Your task to perform on an android device: turn off sleep mode Image 0: 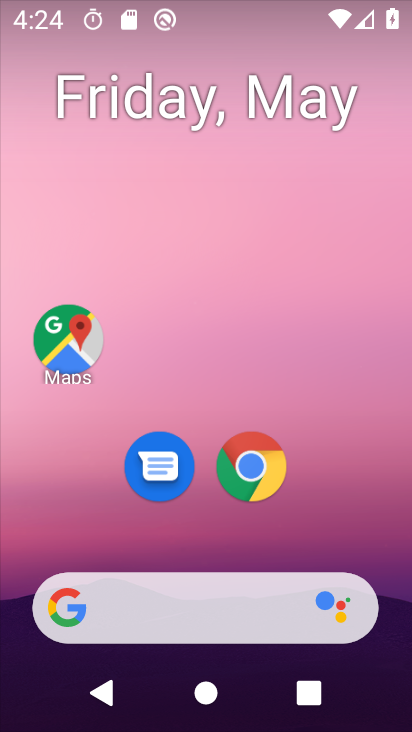
Step 0: drag from (324, 318) to (318, 153)
Your task to perform on an android device: turn off sleep mode Image 1: 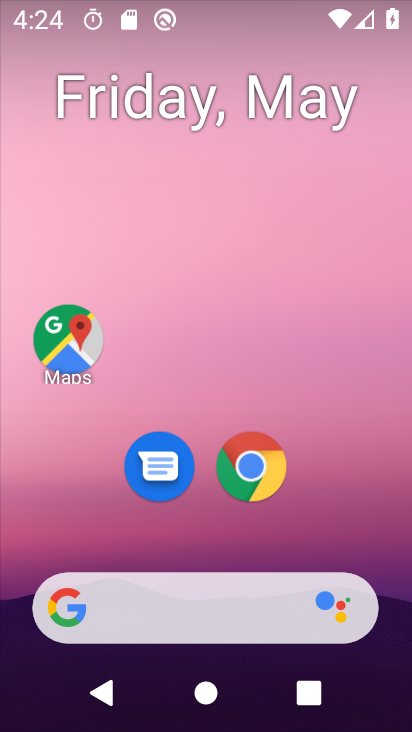
Step 1: drag from (398, 648) to (376, 245)
Your task to perform on an android device: turn off sleep mode Image 2: 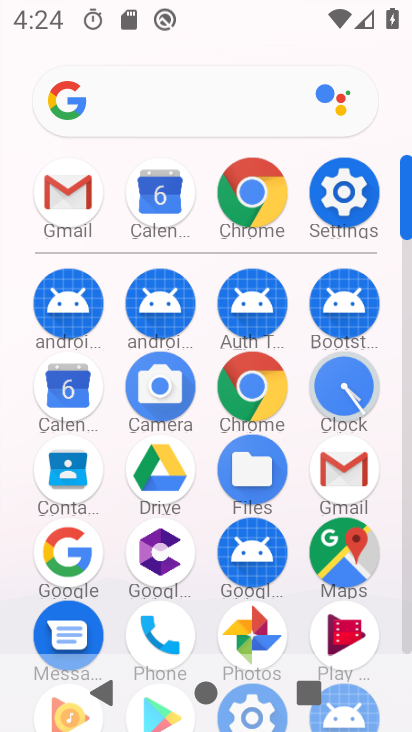
Step 2: click (340, 205)
Your task to perform on an android device: turn off sleep mode Image 3: 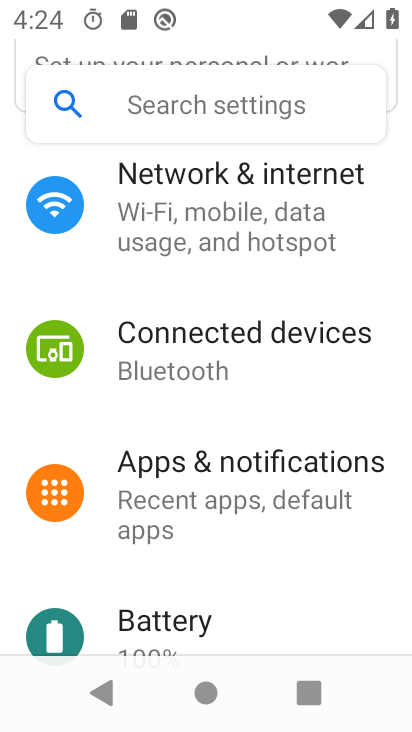
Step 3: drag from (358, 248) to (352, 605)
Your task to perform on an android device: turn off sleep mode Image 4: 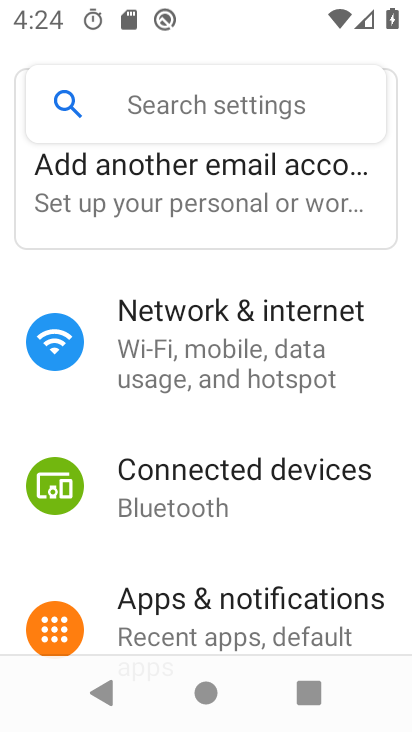
Step 4: drag from (355, 485) to (369, 674)
Your task to perform on an android device: turn off sleep mode Image 5: 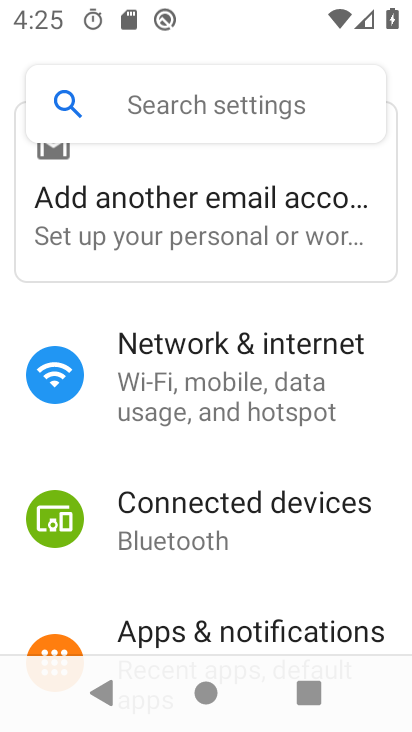
Step 5: drag from (237, 614) to (274, 360)
Your task to perform on an android device: turn off sleep mode Image 6: 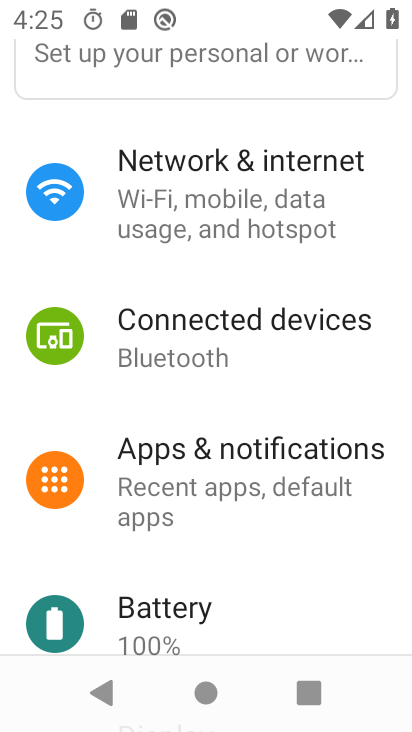
Step 6: drag from (282, 633) to (263, 393)
Your task to perform on an android device: turn off sleep mode Image 7: 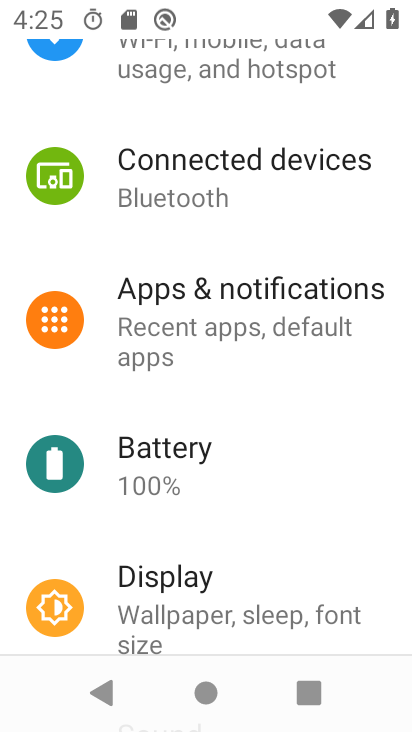
Step 7: drag from (290, 548) to (281, 356)
Your task to perform on an android device: turn off sleep mode Image 8: 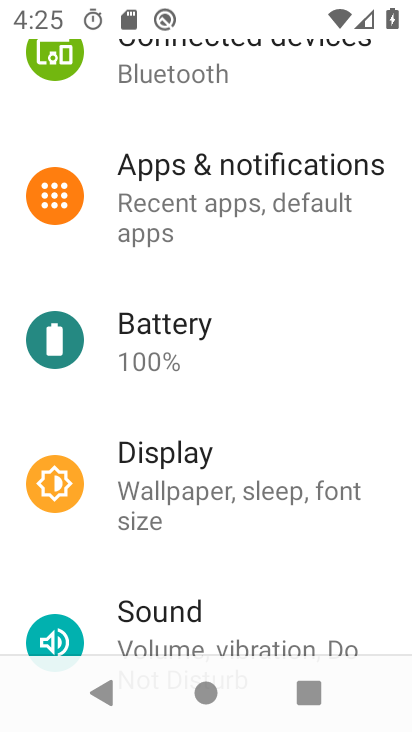
Step 8: click (152, 463)
Your task to perform on an android device: turn off sleep mode Image 9: 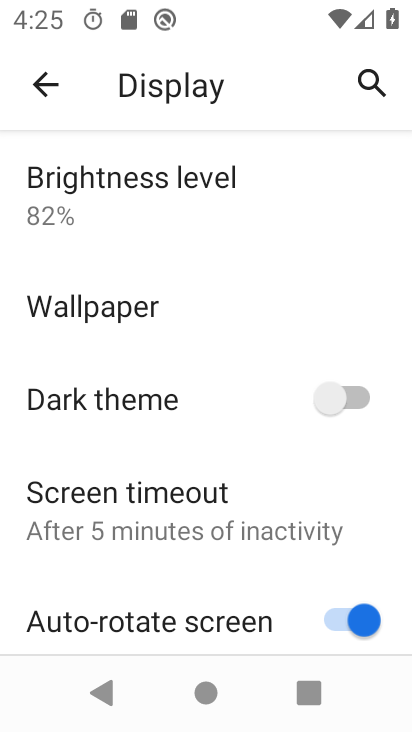
Step 9: drag from (246, 608) to (243, 352)
Your task to perform on an android device: turn off sleep mode Image 10: 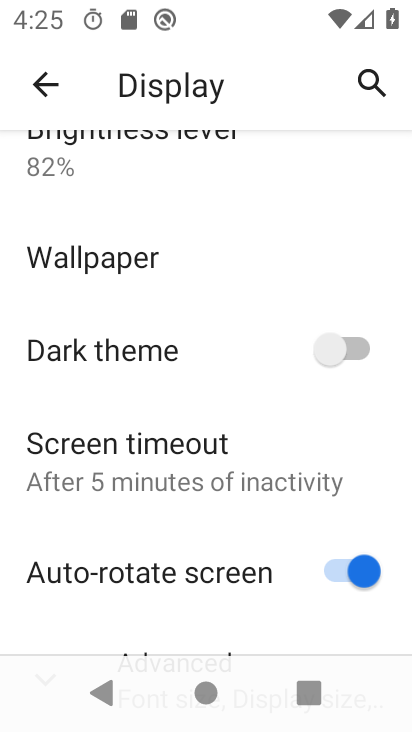
Step 10: drag from (225, 590) to (225, 345)
Your task to perform on an android device: turn off sleep mode Image 11: 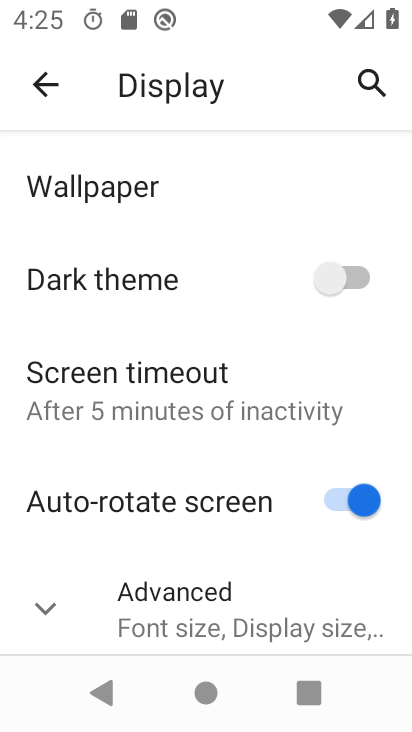
Step 11: click (162, 380)
Your task to perform on an android device: turn off sleep mode Image 12: 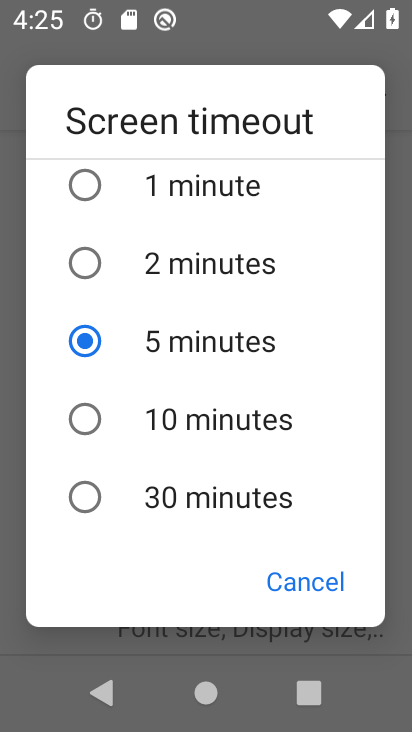
Step 12: task complete